Your task to perform on an android device: turn on airplane mode Image 0: 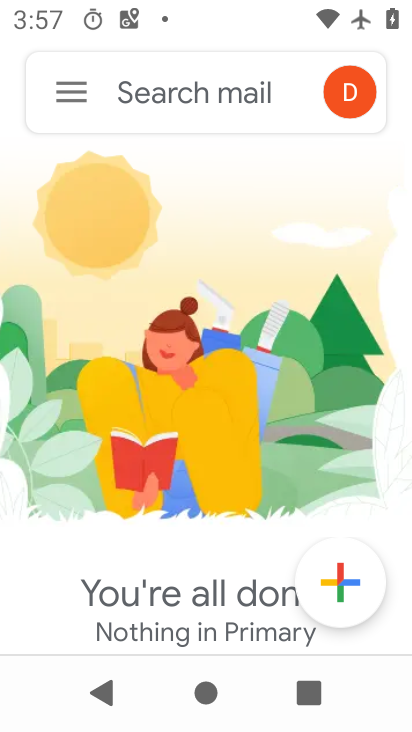
Step 0: click (75, 89)
Your task to perform on an android device: turn on airplane mode Image 1: 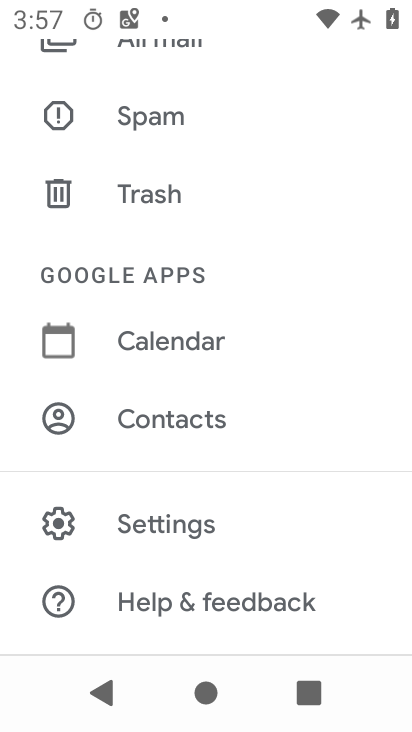
Step 1: drag from (230, 126) to (290, 719)
Your task to perform on an android device: turn on airplane mode Image 2: 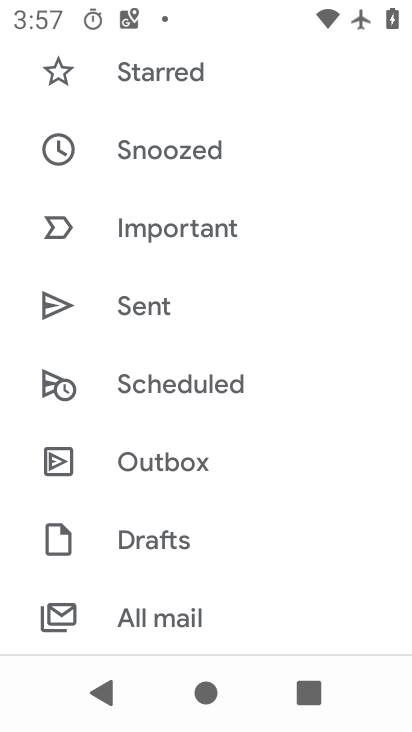
Step 2: drag from (201, 169) to (371, 721)
Your task to perform on an android device: turn on airplane mode Image 3: 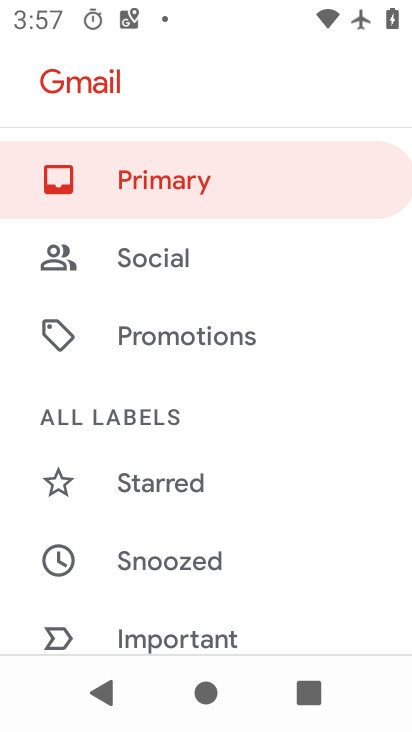
Step 3: press home button
Your task to perform on an android device: turn on airplane mode Image 4: 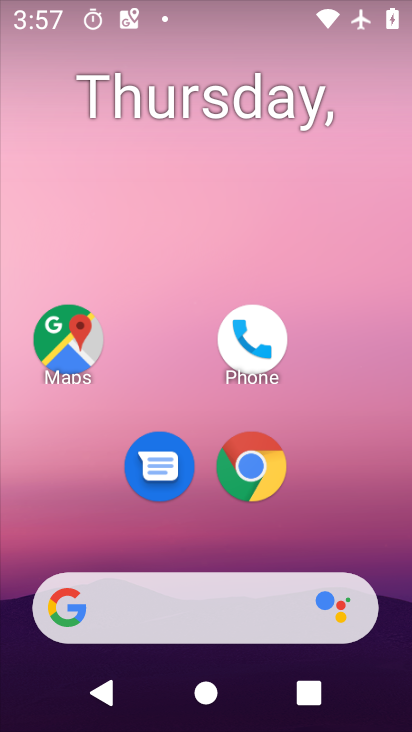
Step 4: drag from (195, 543) to (256, 69)
Your task to perform on an android device: turn on airplane mode Image 5: 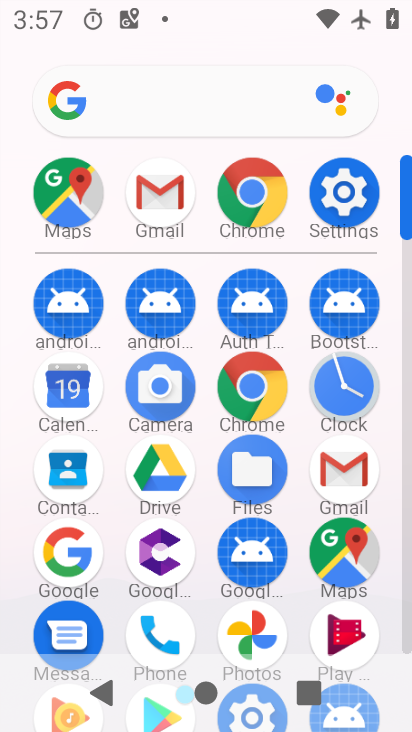
Step 5: click (373, 196)
Your task to perform on an android device: turn on airplane mode Image 6: 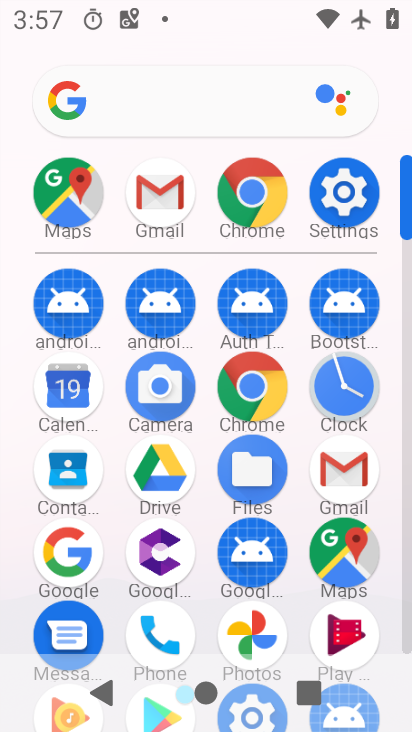
Step 6: click (373, 196)
Your task to perform on an android device: turn on airplane mode Image 7: 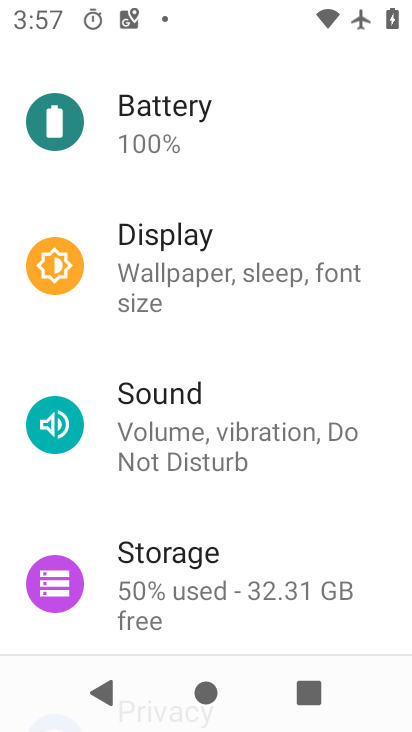
Step 7: drag from (174, 148) to (256, 679)
Your task to perform on an android device: turn on airplane mode Image 8: 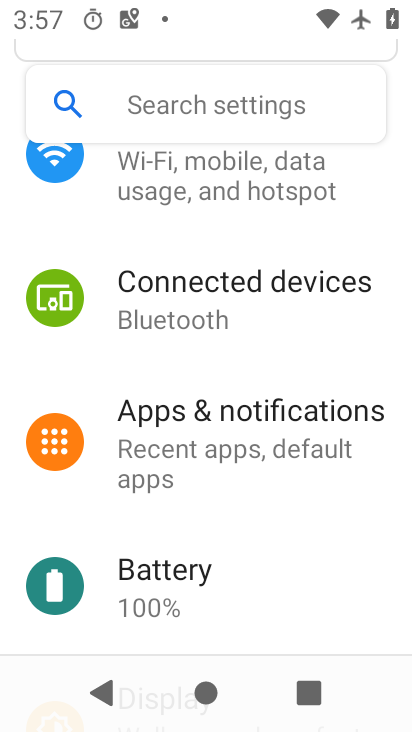
Step 8: drag from (200, 227) to (329, 674)
Your task to perform on an android device: turn on airplane mode Image 9: 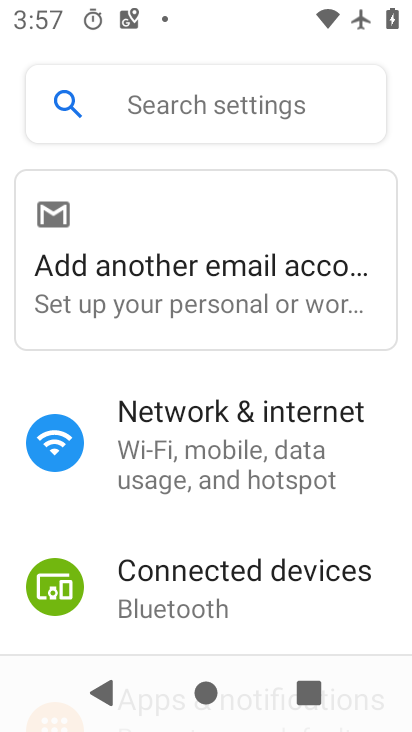
Step 9: click (164, 437)
Your task to perform on an android device: turn on airplane mode Image 10: 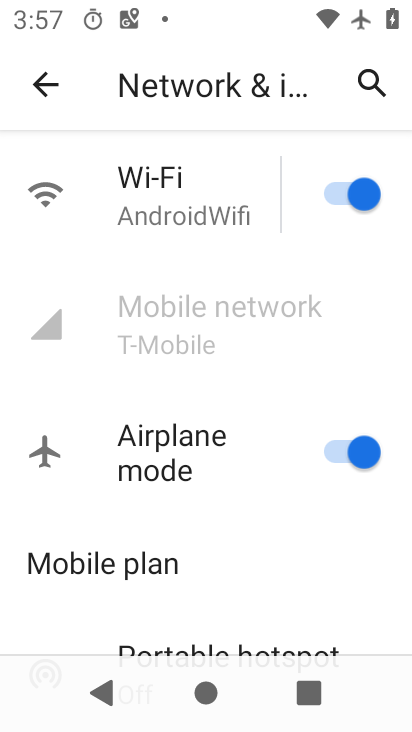
Step 10: task complete